Your task to perform on an android device: turn on data saver in the chrome app Image 0: 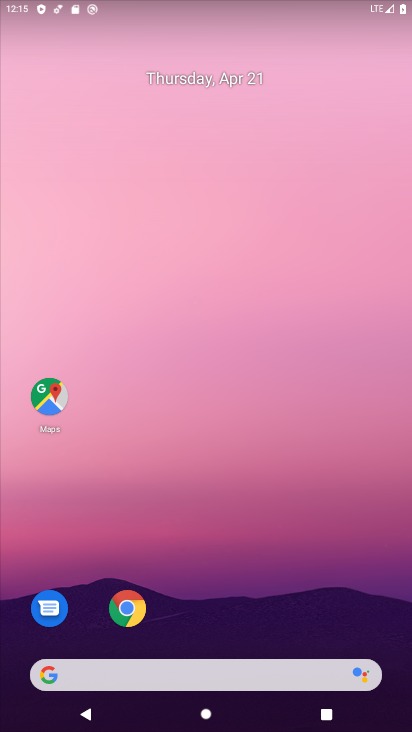
Step 0: click (124, 608)
Your task to perform on an android device: turn on data saver in the chrome app Image 1: 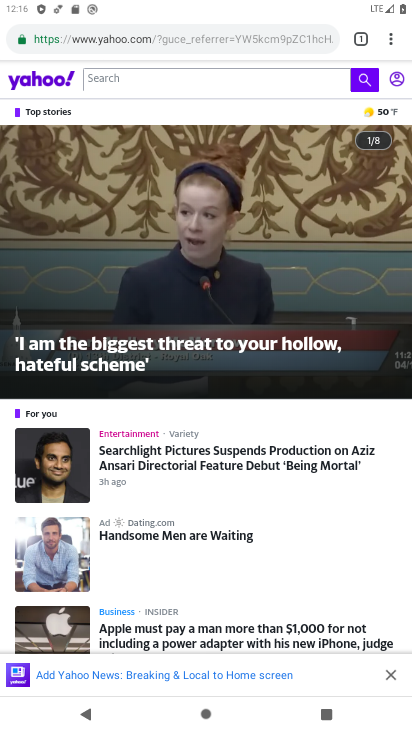
Step 1: drag from (394, 34) to (264, 518)
Your task to perform on an android device: turn on data saver in the chrome app Image 2: 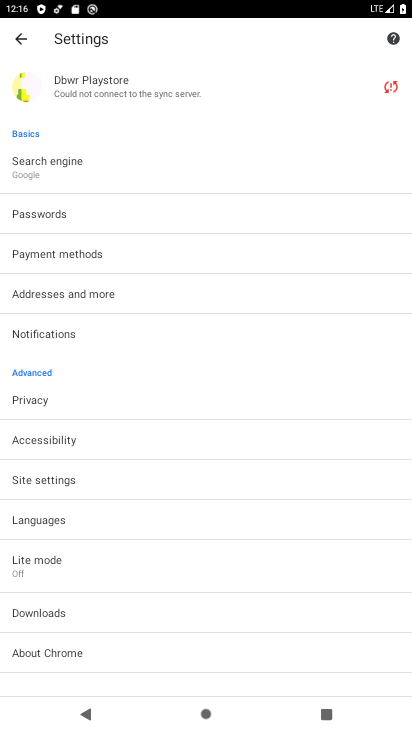
Step 2: click (52, 567)
Your task to perform on an android device: turn on data saver in the chrome app Image 3: 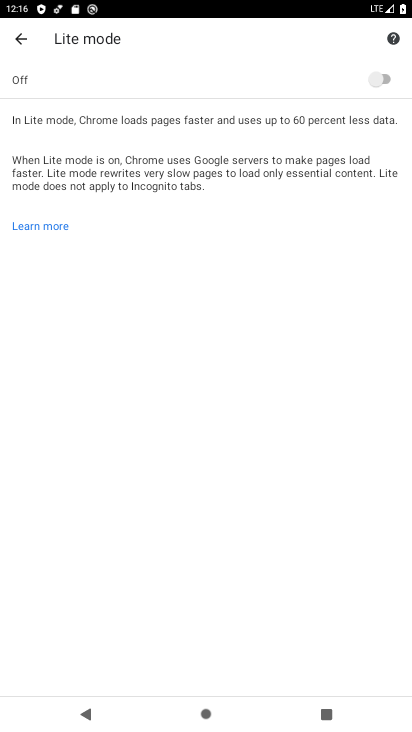
Step 3: click (384, 75)
Your task to perform on an android device: turn on data saver in the chrome app Image 4: 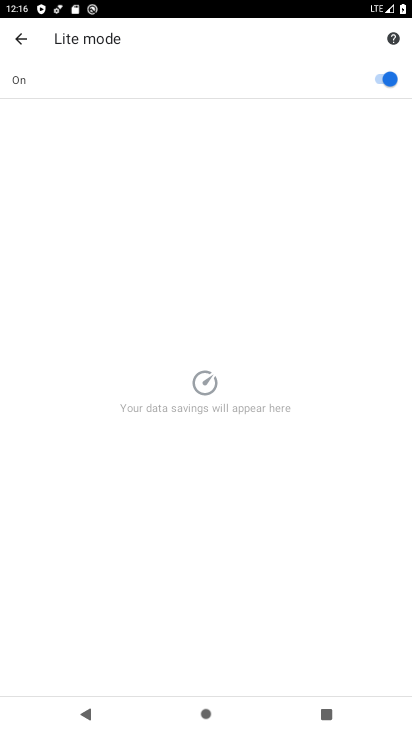
Step 4: task complete